Your task to perform on an android device: empty trash in google photos Image 0: 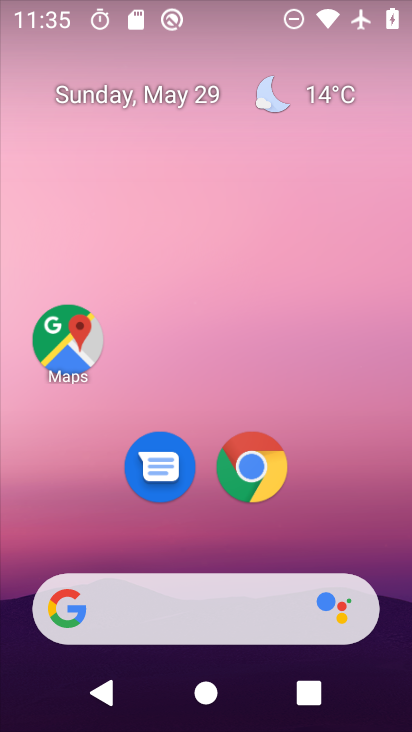
Step 0: drag from (193, 543) to (204, 187)
Your task to perform on an android device: empty trash in google photos Image 1: 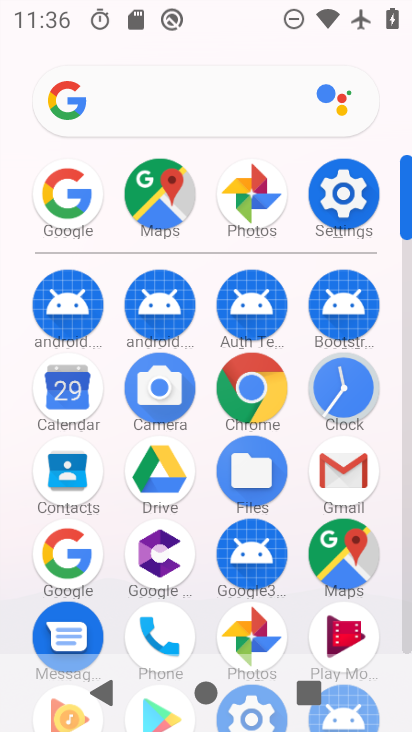
Step 1: click (245, 219)
Your task to perform on an android device: empty trash in google photos Image 2: 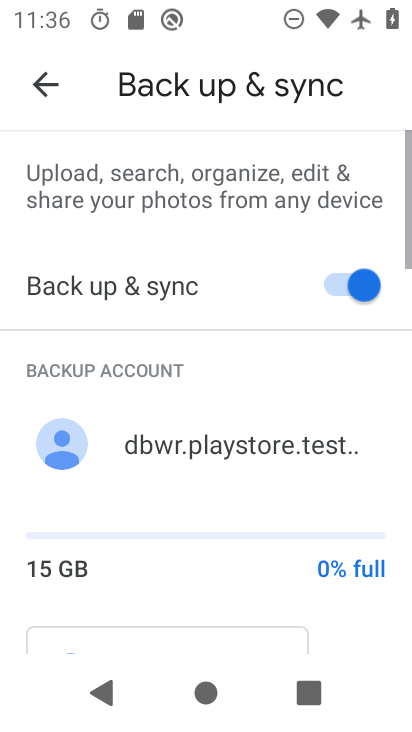
Step 2: click (36, 86)
Your task to perform on an android device: empty trash in google photos Image 3: 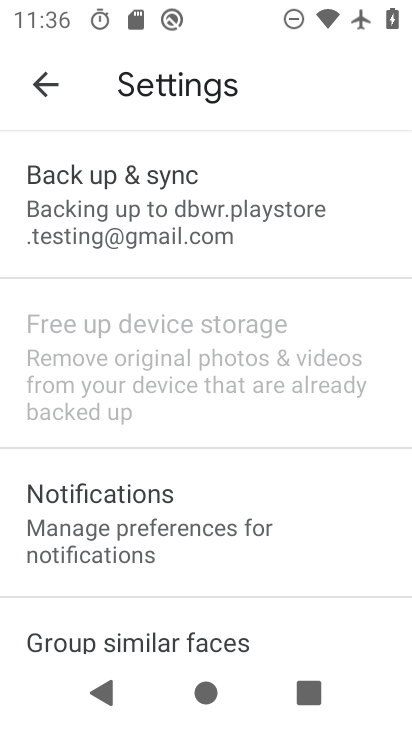
Step 3: click (33, 83)
Your task to perform on an android device: empty trash in google photos Image 4: 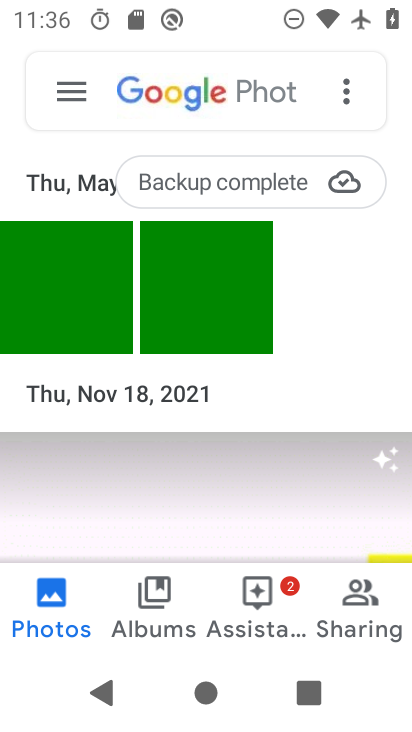
Step 4: click (44, 87)
Your task to perform on an android device: empty trash in google photos Image 5: 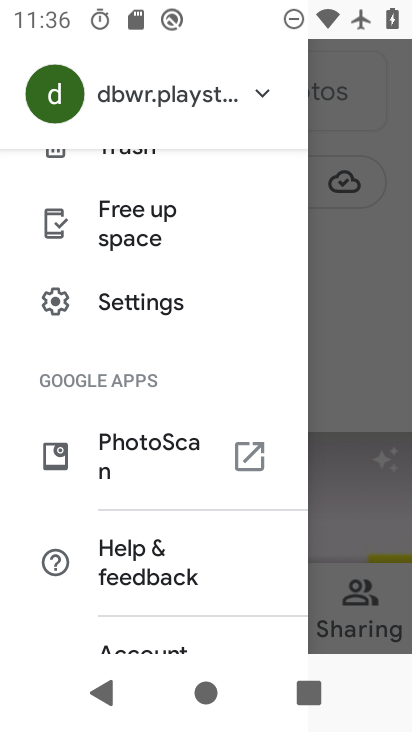
Step 5: drag from (154, 205) to (158, 401)
Your task to perform on an android device: empty trash in google photos Image 6: 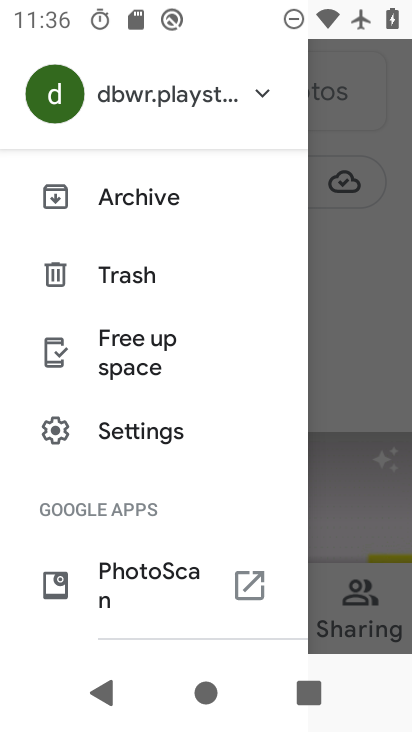
Step 6: click (132, 285)
Your task to perform on an android device: empty trash in google photos Image 7: 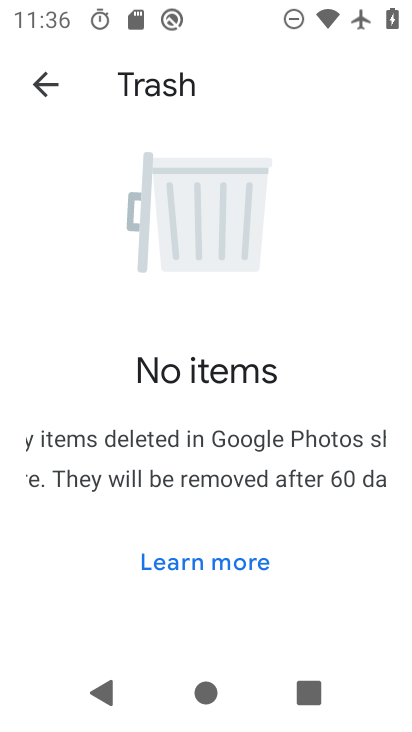
Step 7: task complete